Your task to perform on an android device: Go to wifi settings Image 0: 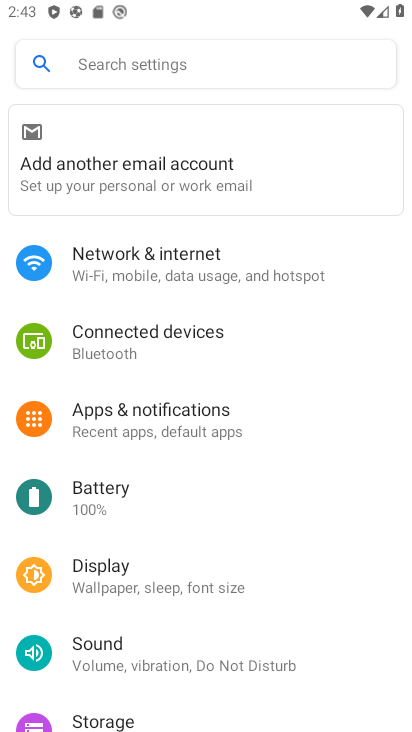
Step 0: press home button
Your task to perform on an android device: Go to wifi settings Image 1: 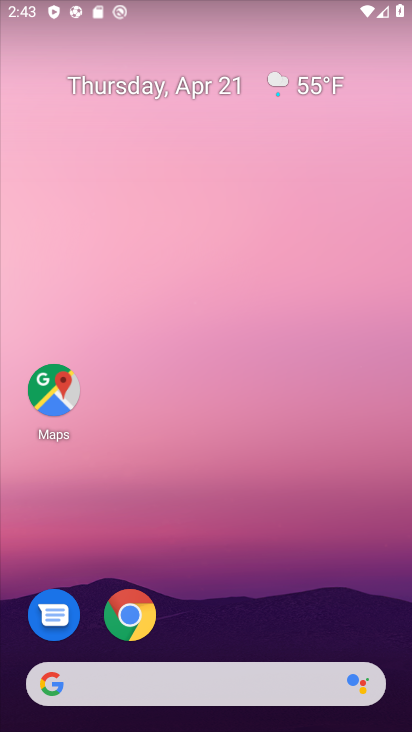
Step 1: drag from (171, 691) to (280, 110)
Your task to perform on an android device: Go to wifi settings Image 2: 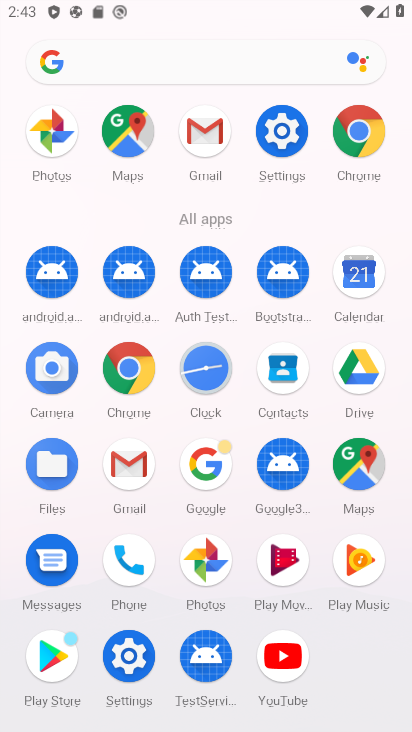
Step 2: click (285, 145)
Your task to perform on an android device: Go to wifi settings Image 3: 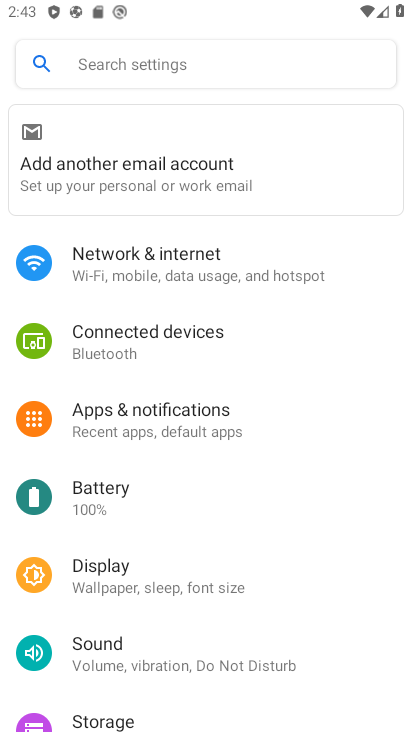
Step 3: click (166, 269)
Your task to perform on an android device: Go to wifi settings Image 4: 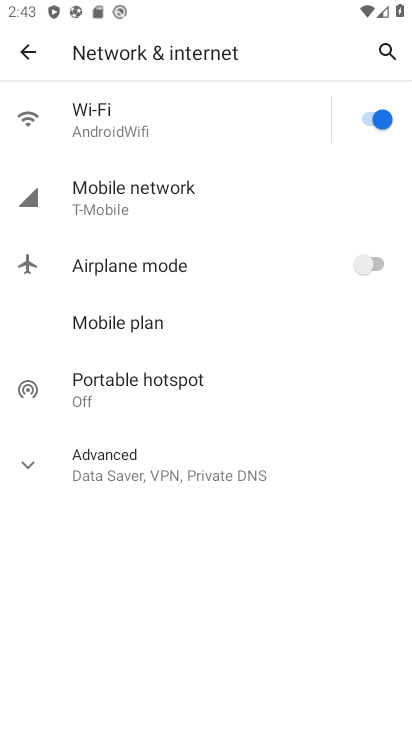
Step 4: click (130, 122)
Your task to perform on an android device: Go to wifi settings Image 5: 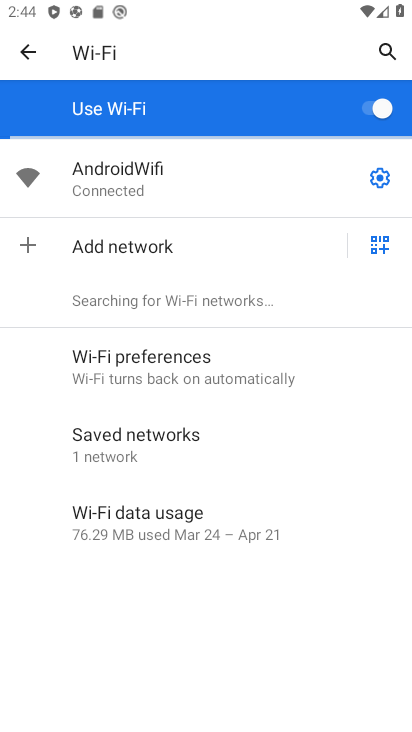
Step 5: task complete